Your task to perform on an android device: move a message to another label in the gmail app Image 0: 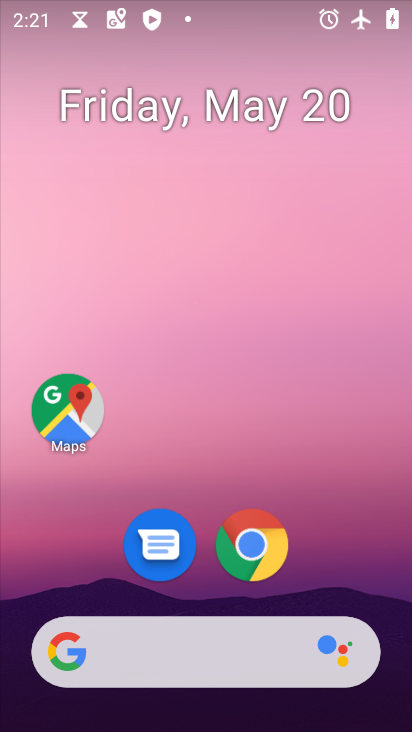
Step 0: drag from (340, 595) to (263, 70)
Your task to perform on an android device: move a message to another label in the gmail app Image 1: 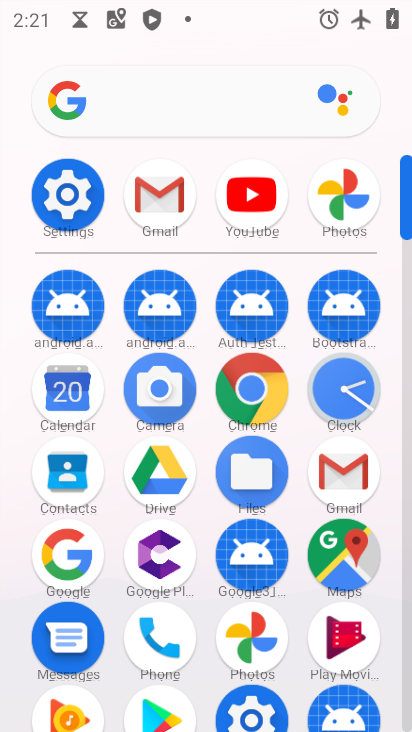
Step 1: click (169, 193)
Your task to perform on an android device: move a message to another label in the gmail app Image 2: 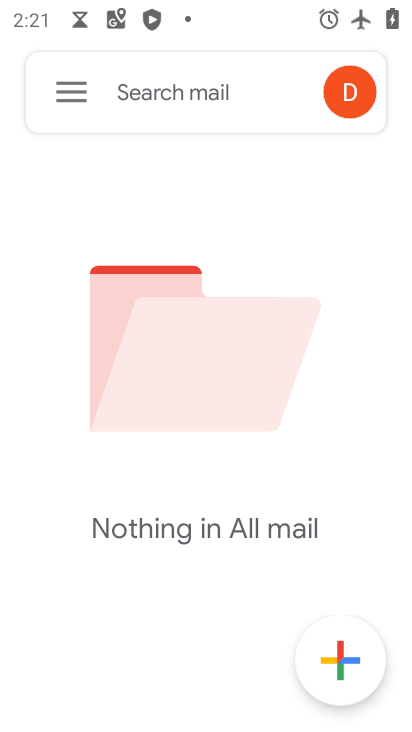
Step 2: click (79, 93)
Your task to perform on an android device: move a message to another label in the gmail app Image 3: 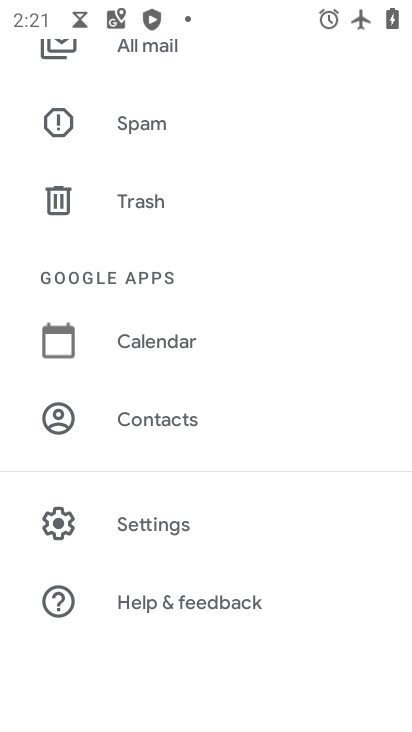
Step 3: drag from (301, 139) to (301, 406)
Your task to perform on an android device: move a message to another label in the gmail app Image 4: 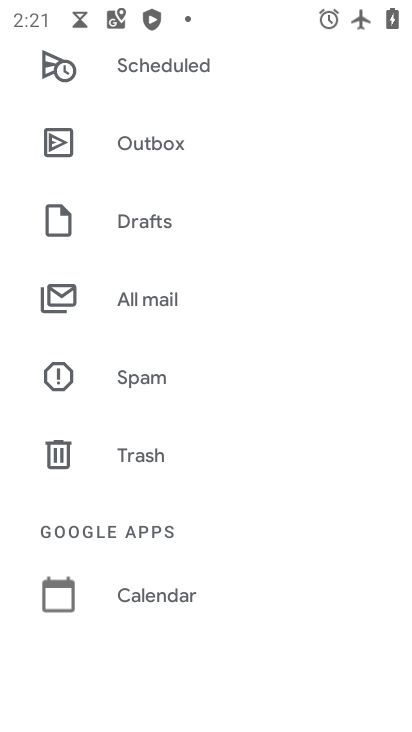
Step 4: click (171, 308)
Your task to perform on an android device: move a message to another label in the gmail app Image 5: 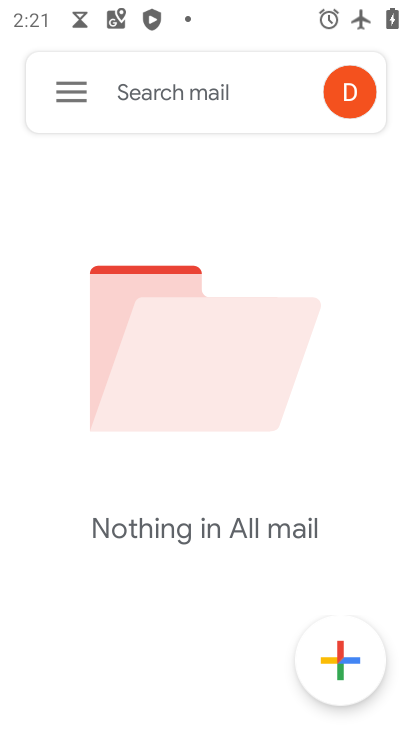
Step 5: task complete